Your task to perform on an android device: open wifi settings Image 0: 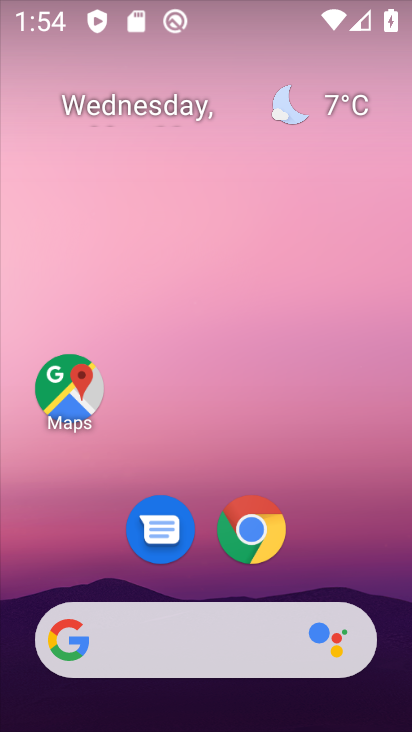
Step 0: drag from (28, 623) to (251, 110)
Your task to perform on an android device: open wifi settings Image 1: 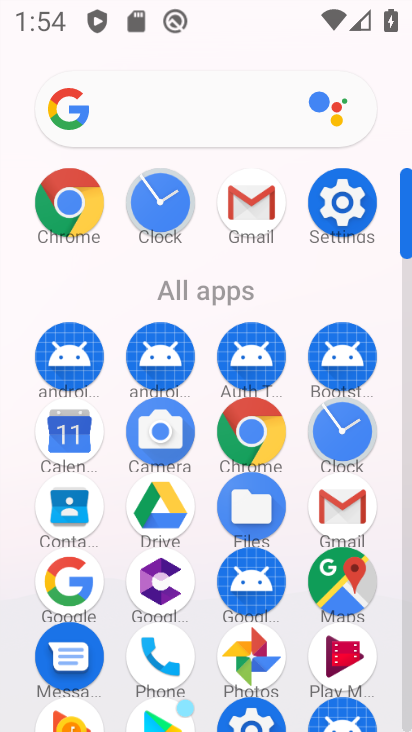
Step 1: click (331, 199)
Your task to perform on an android device: open wifi settings Image 2: 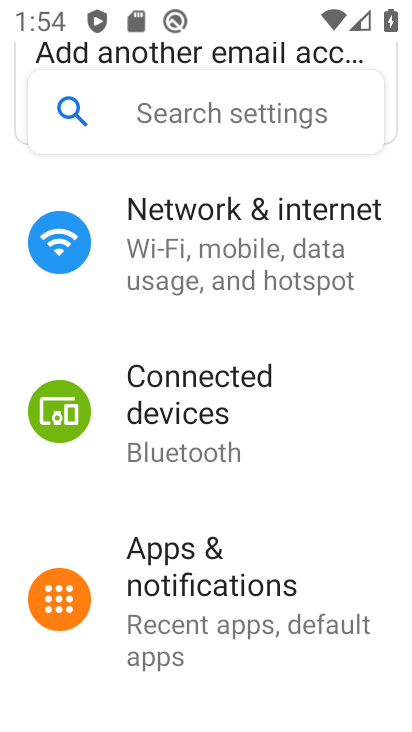
Step 2: click (176, 237)
Your task to perform on an android device: open wifi settings Image 3: 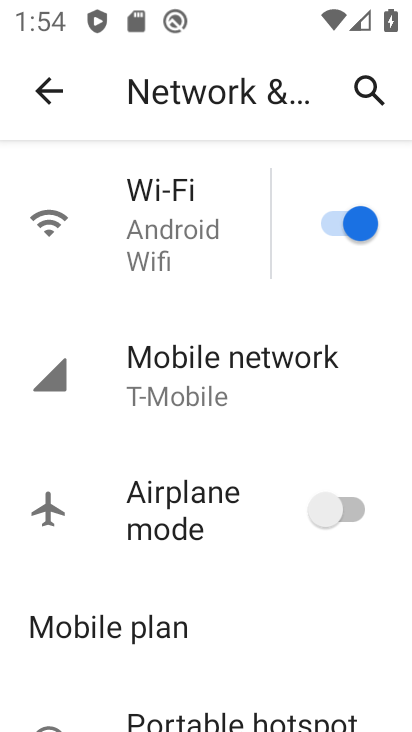
Step 3: click (196, 237)
Your task to perform on an android device: open wifi settings Image 4: 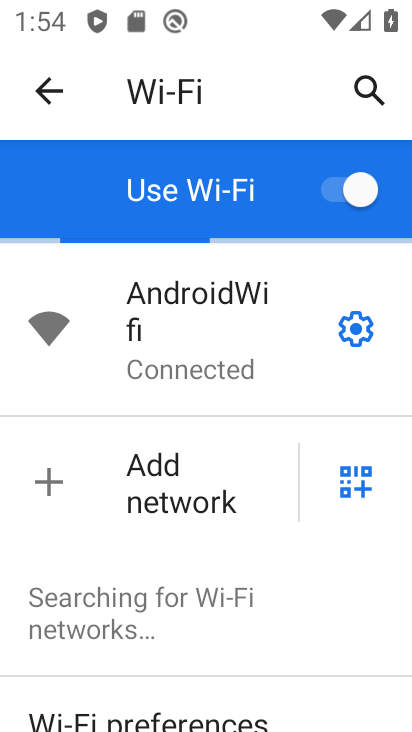
Step 4: click (357, 313)
Your task to perform on an android device: open wifi settings Image 5: 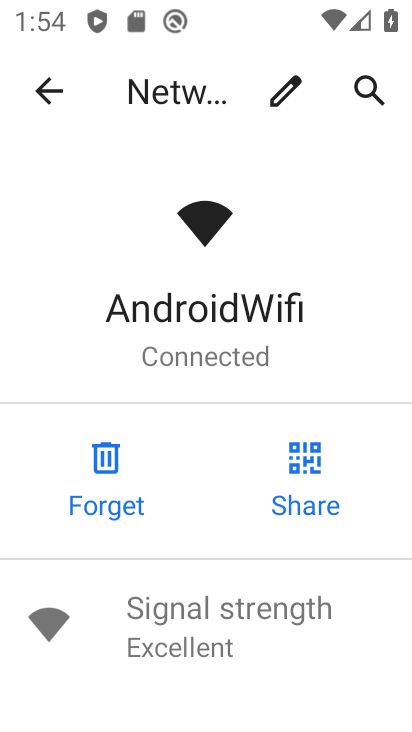
Step 5: task complete